Your task to perform on an android device: set default search engine in the chrome app Image 0: 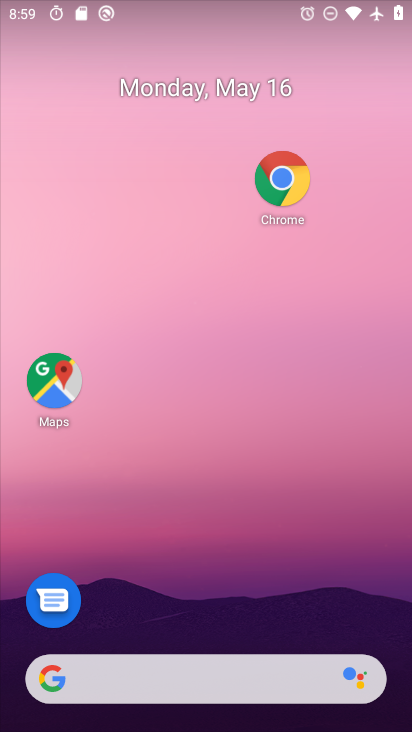
Step 0: click (270, 185)
Your task to perform on an android device: set default search engine in the chrome app Image 1: 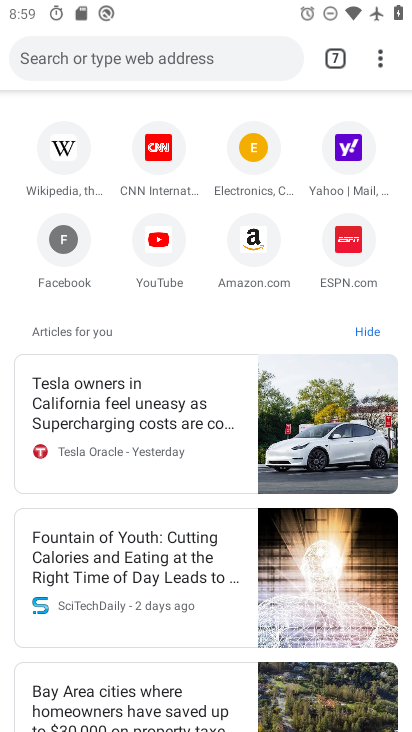
Step 1: drag from (382, 64) to (233, 483)
Your task to perform on an android device: set default search engine in the chrome app Image 2: 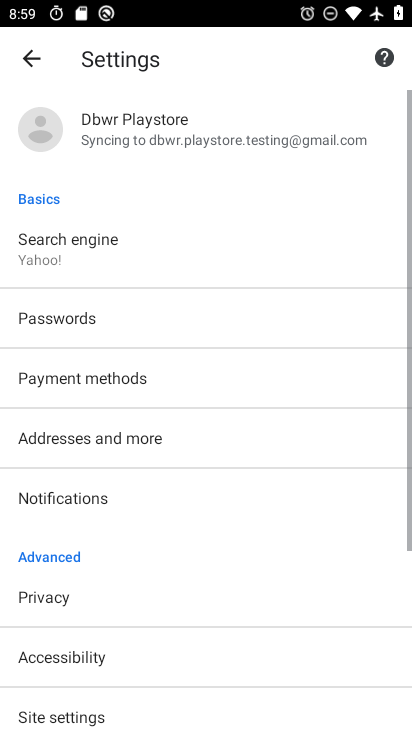
Step 2: click (49, 260)
Your task to perform on an android device: set default search engine in the chrome app Image 3: 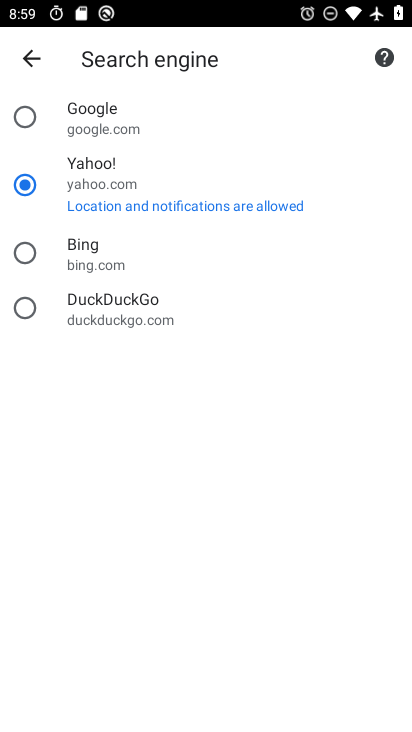
Step 3: click (23, 117)
Your task to perform on an android device: set default search engine in the chrome app Image 4: 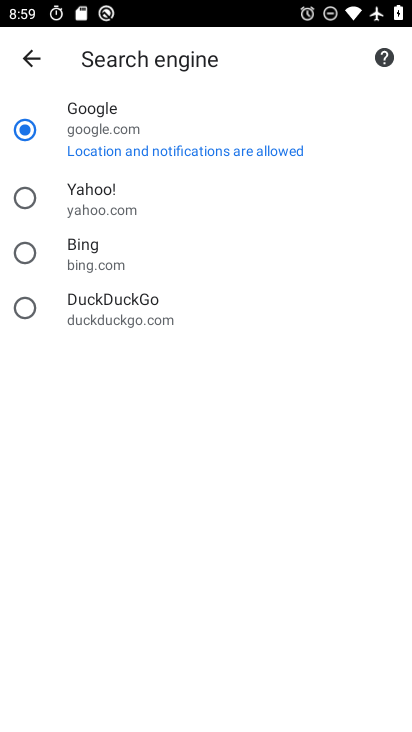
Step 4: task complete